Your task to perform on an android device: Go to calendar. Show me events next week Image 0: 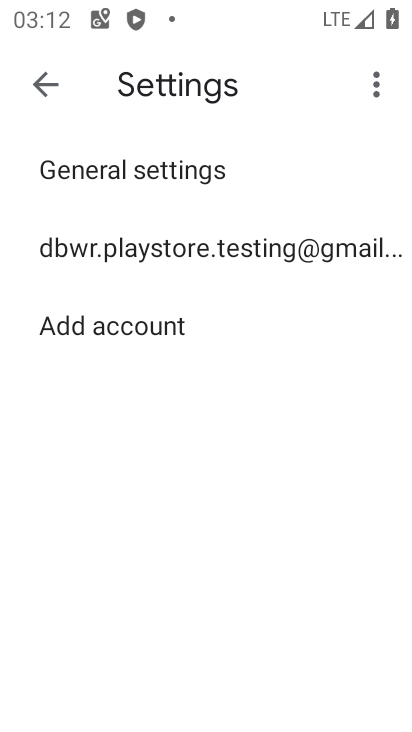
Step 0: press home button
Your task to perform on an android device: Go to calendar. Show me events next week Image 1: 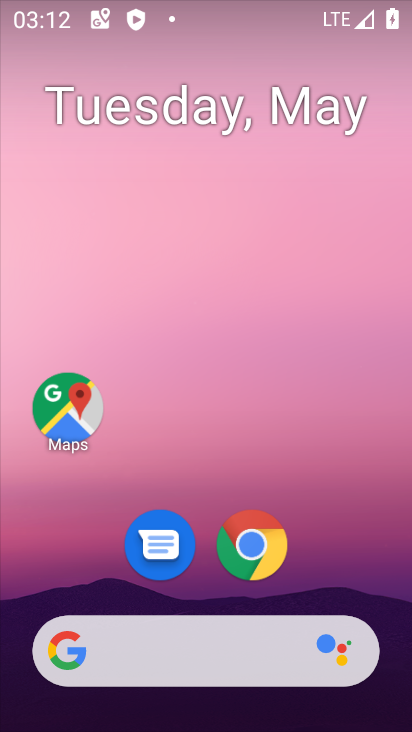
Step 1: drag from (398, 652) to (323, 131)
Your task to perform on an android device: Go to calendar. Show me events next week Image 2: 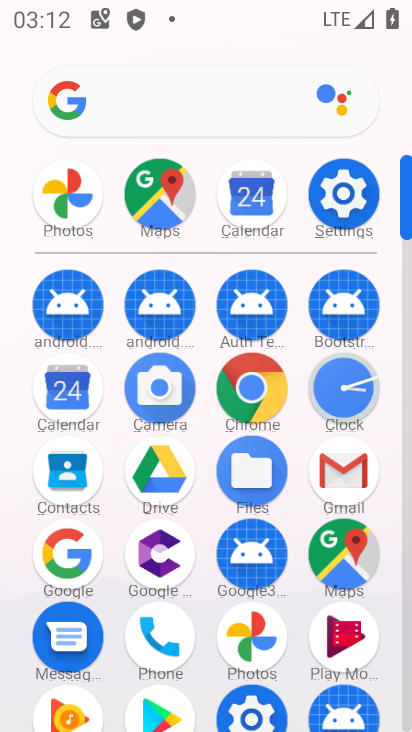
Step 2: click (68, 391)
Your task to perform on an android device: Go to calendar. Show me events next week Image 3: 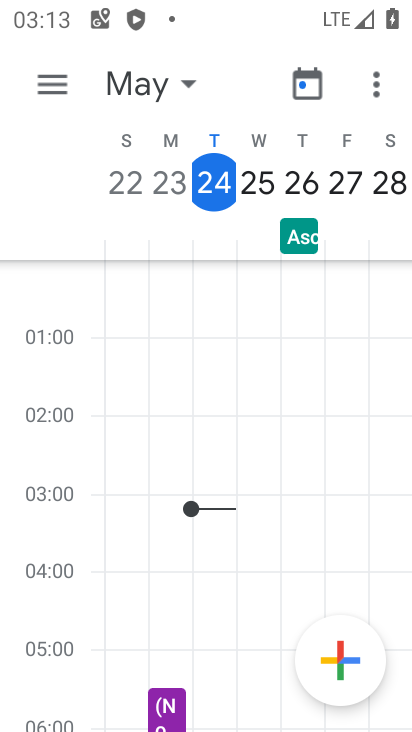
Step 3: click (58, 87)
Your task to perform on an android device: Go to calendar. Show me events next week Image 4: 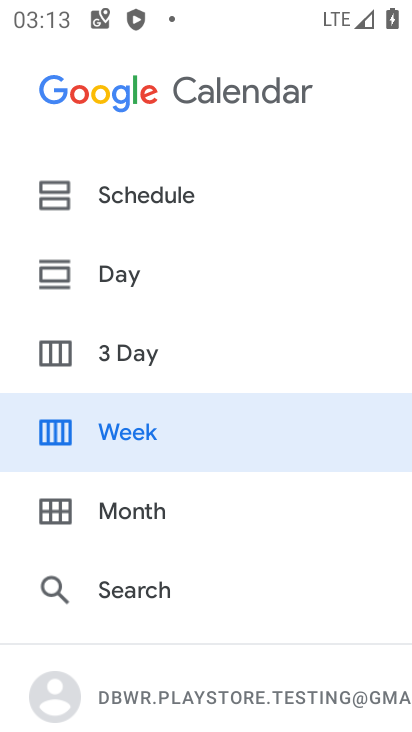
Step 4: click (129, 430)
Your task to perform on an android device: Go to calendar. Show me events next week Image 5: 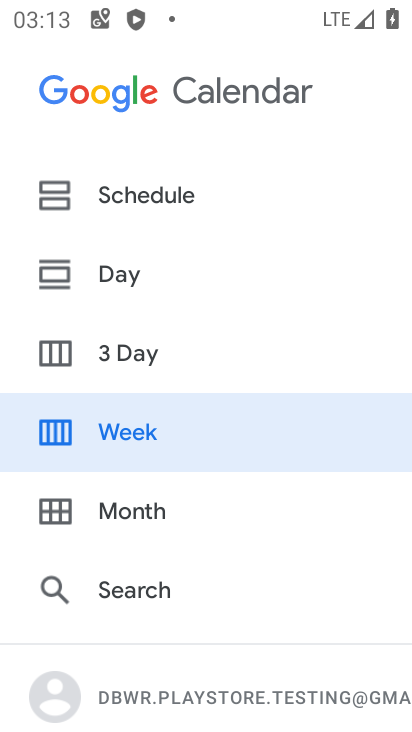
Step 5: click (143, 427)
Your task to perform on an android device: Go to calendar. Show me events next week Image 6: 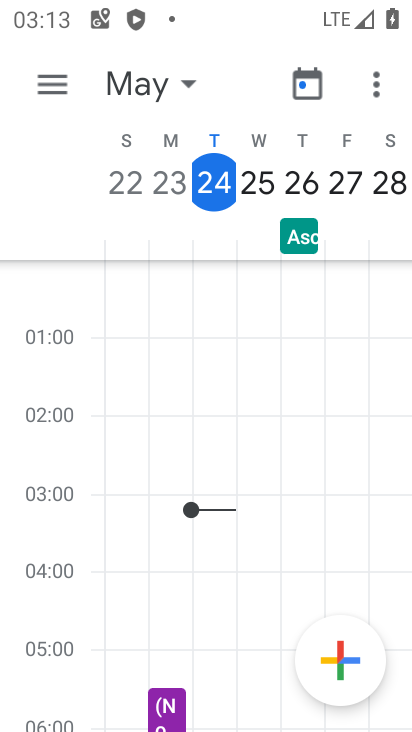
Step 6: click (183, 82)
Your task to perform on an android device: Go to calendar. Show me events next week Image 7: 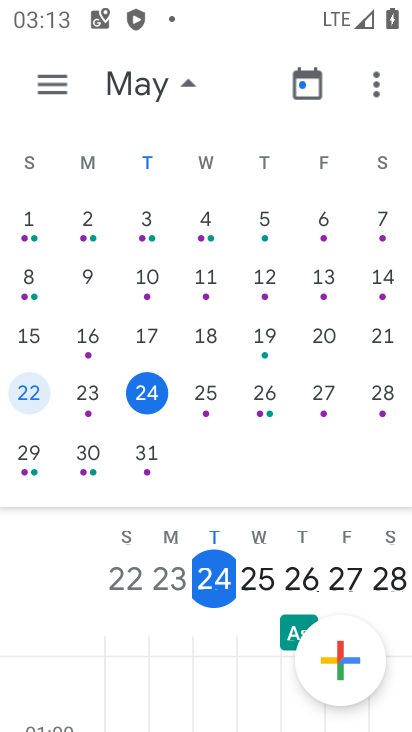
Step 7: click (19, 461)
Your task to perform on an android device: Go to calendar. Show me events next week Image 8: 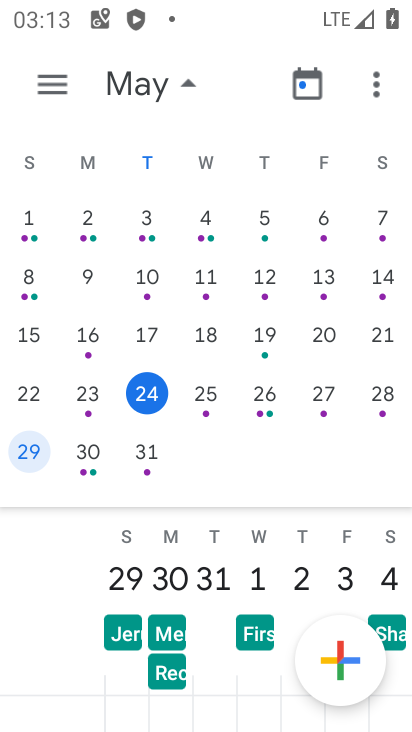
Step 8: task complete